Your task to perform on an android device: check out phone information Image 0: 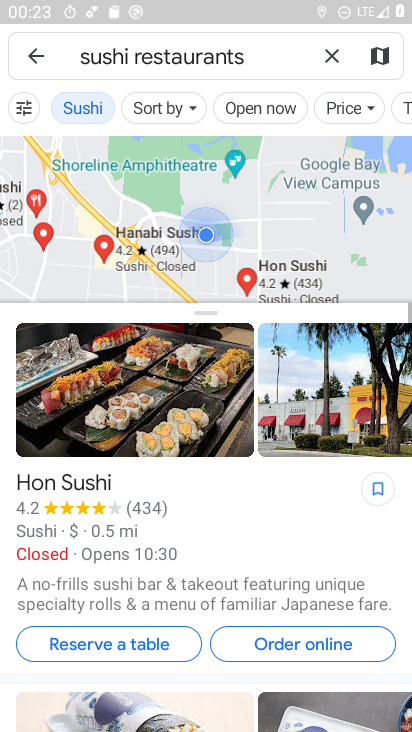
Step 0: press home button
Your task to perform on an android device: check out phone information Image 1: 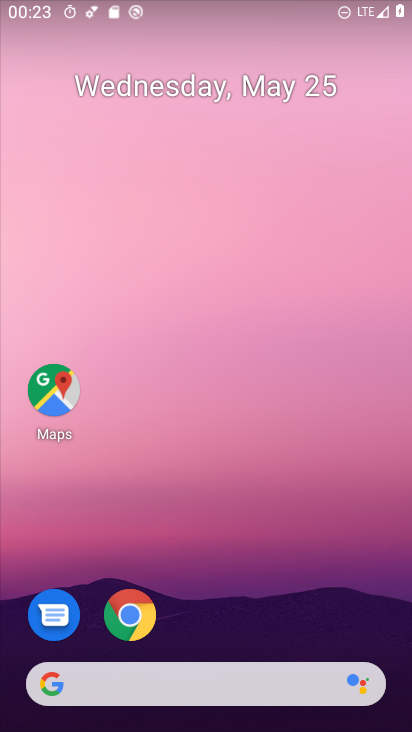
Step 1: drag from (230, 679) to (193, 1)
Your task to perform on an android device: check out phone information Image 2: 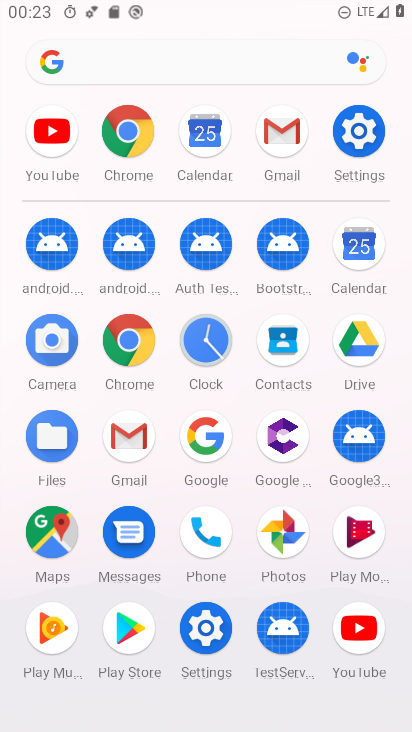
Step 2: click (369, 129)
Your task to perform on an android device: check out phone information Image 3: 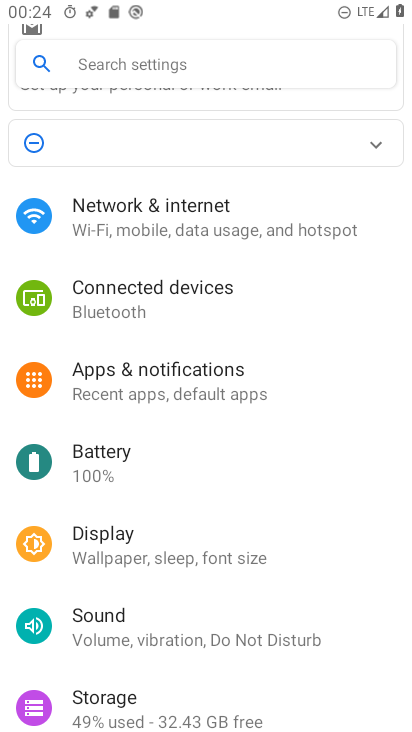
Step 3: click (121, 67)
Your task to perform on an android device: check out phone information Image 4: 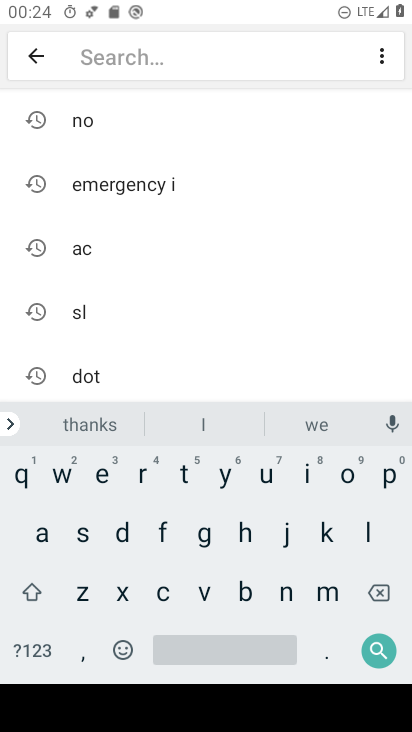
Step 4: click (41, 542)
Your task to perform on an android device: check out phone information Image 5: 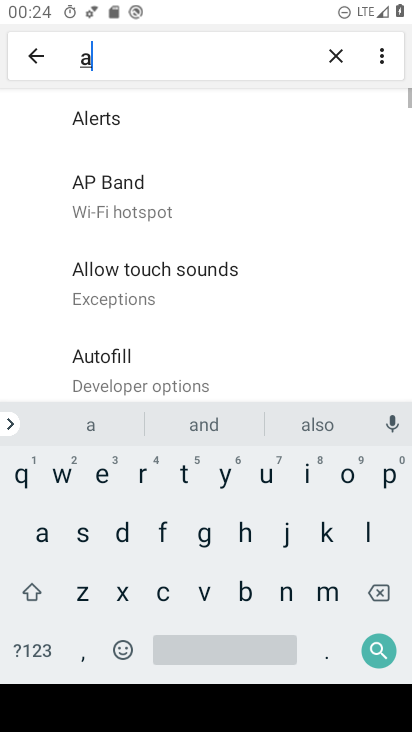
Step 5: click (248, 594)
Your task to perform on an android device: check out phone information Image 6: 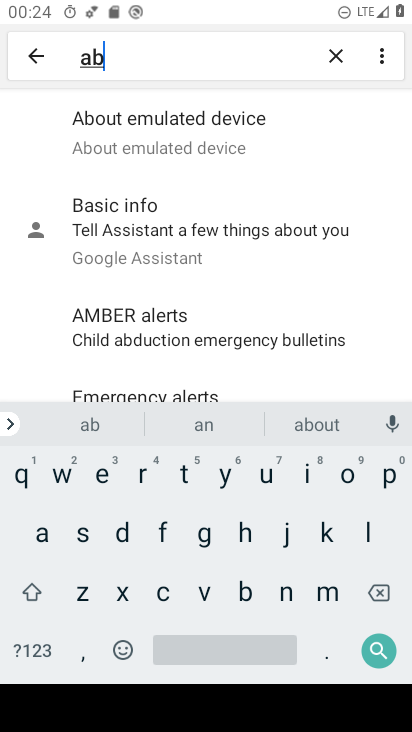
Step 6: click (197, 137)
Your task to perform on an android device: check out phone information Image 7: 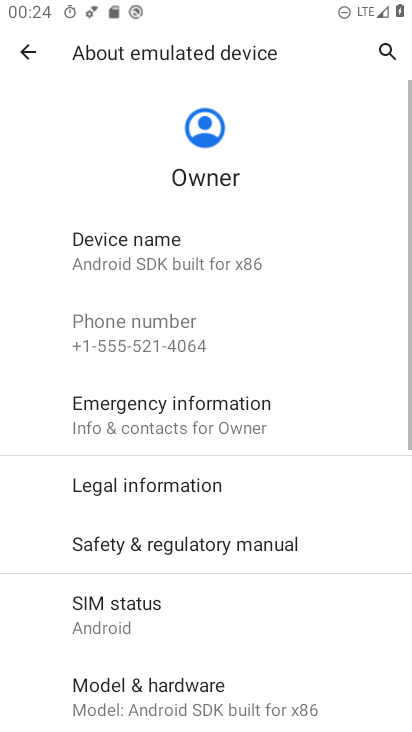
Step 7: task complete